Your task to perform on an android device: install app "Google Maps" Image 0: 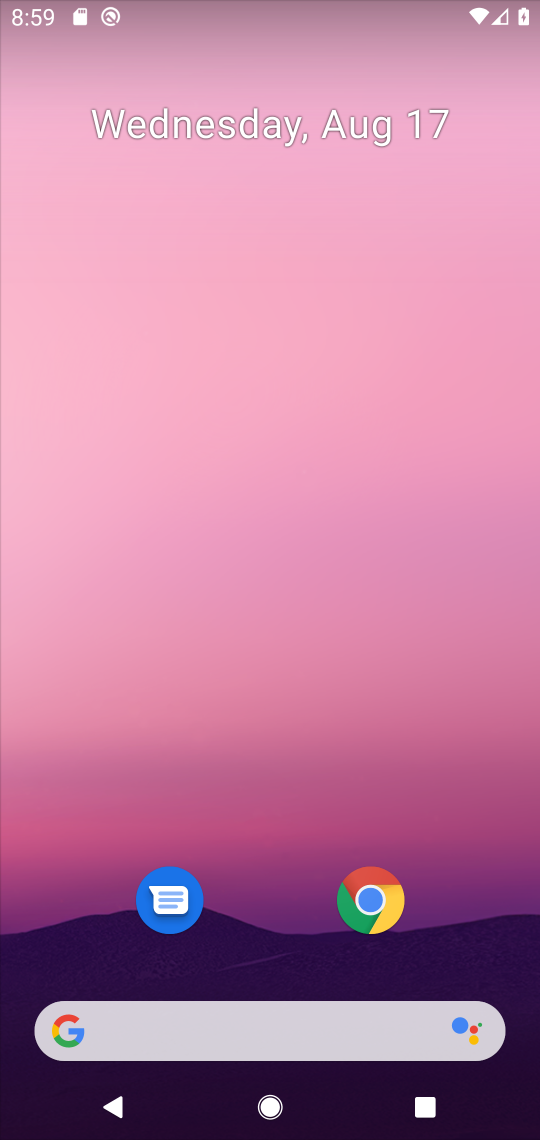
Step 0: drag from (318, 841) to (376, 87)
Your task to perform on an android device: install app "Google Maps" Image 1: 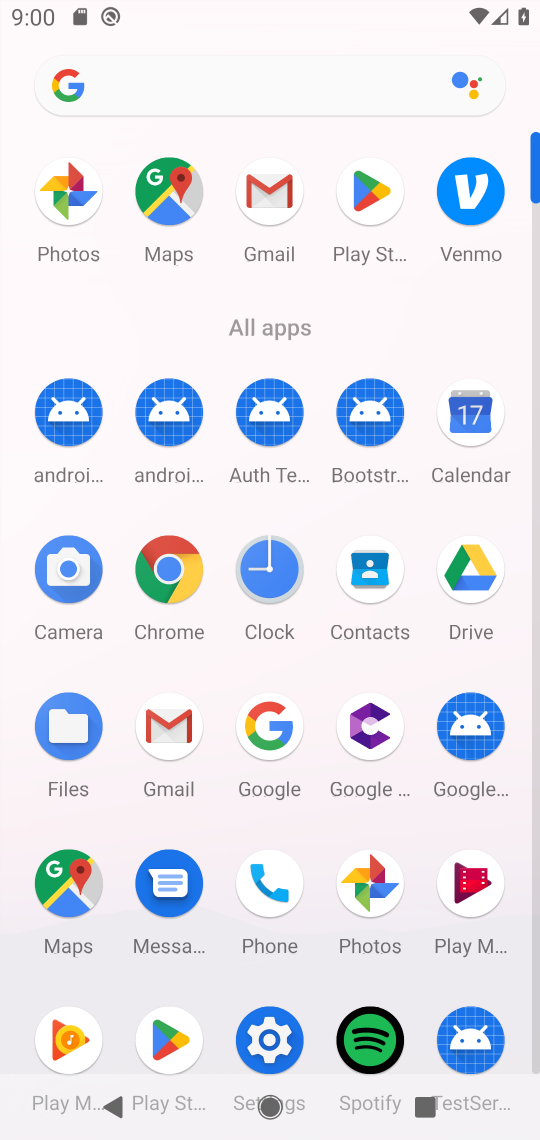
Step 1: click (68, 913)
Your task to perform on an android device: install app "Google Maps" Image 2: 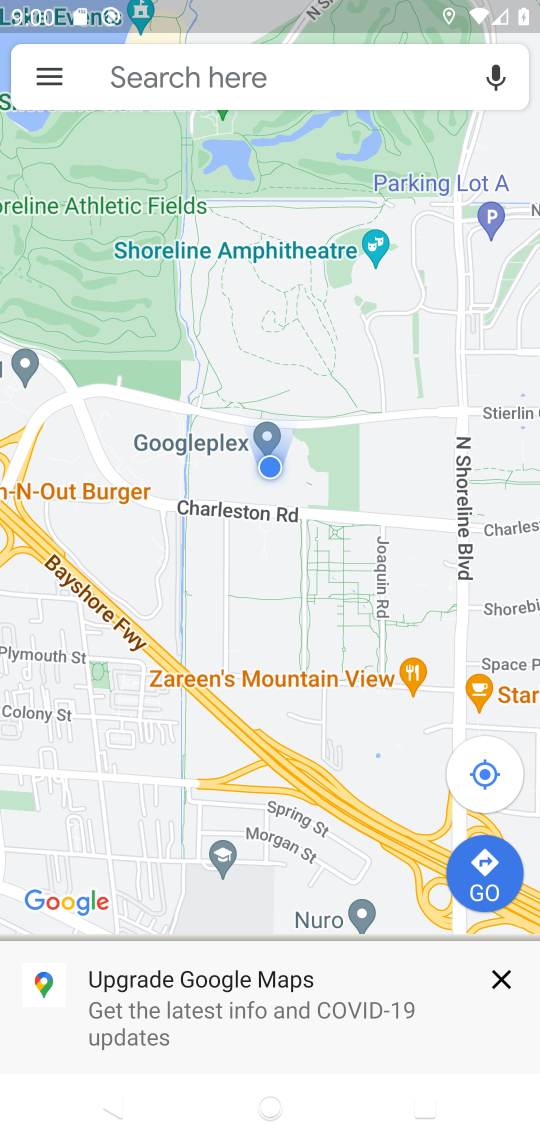
Step 2: task complete